Your task to perform on an android device: turn on the 12-hour format for clock Image 0: 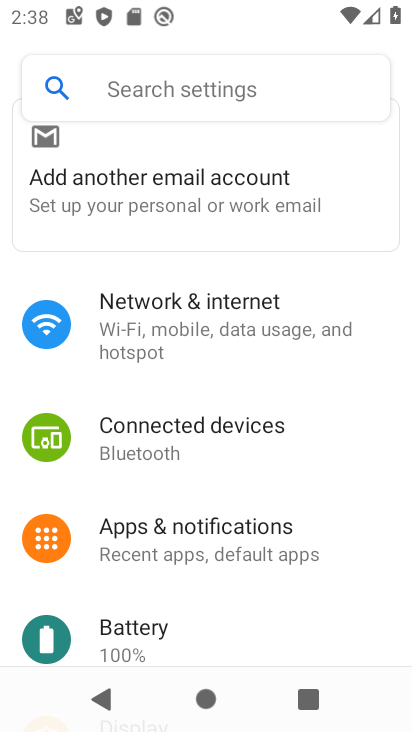
Step 0: press home button
Your task to perform on an android device: turn on the 12-hour format for clock Image 1: 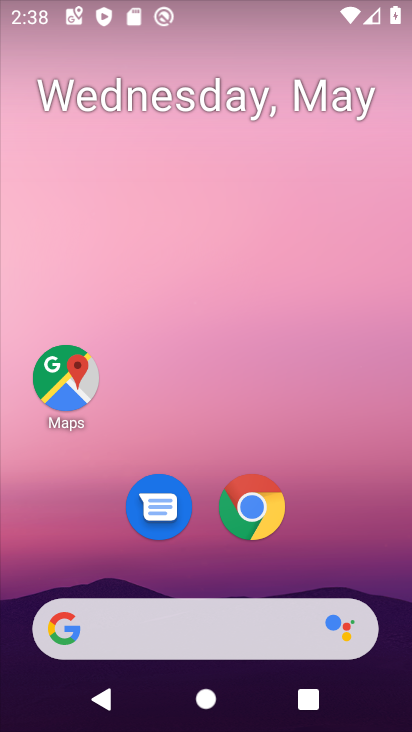
Step 1: drag from (231, 556) to (287, 3)
Your task to perform on an android device: turn on the 12-hour format for clock Image 2: 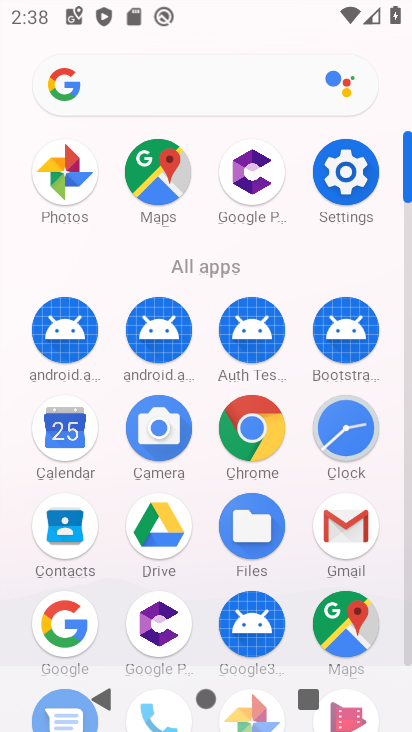
Step 2: click (348, 192)
Your task to perform on an android device: turn on the 12-hour format for clock Image 3: 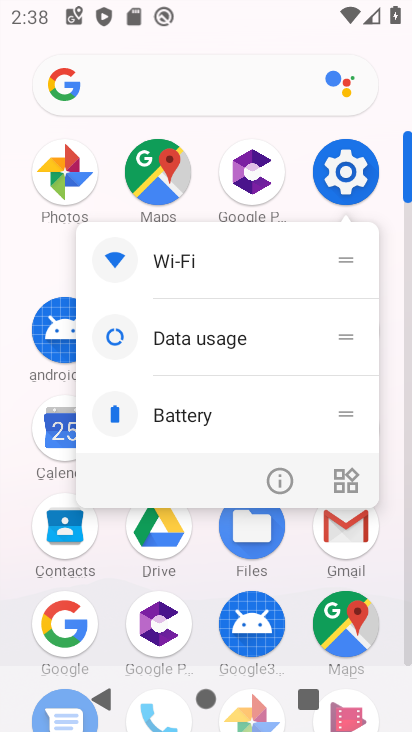
Step 3: click (353, 151)
Your task to perform on an android device: turn on the 12-hour format for clock Image 4: 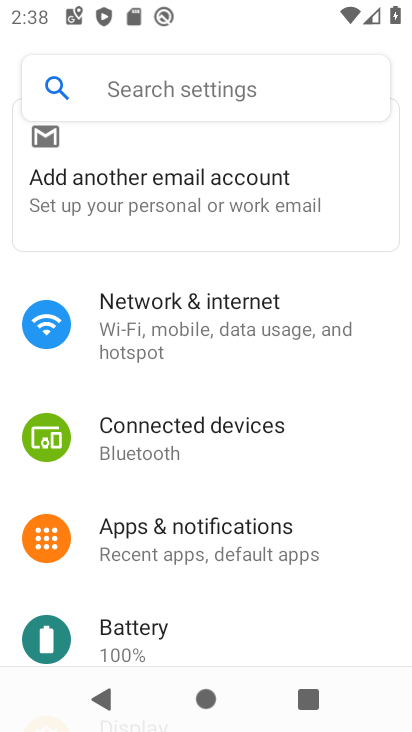
Step 4: drag from (254, 576) to (292, 12)
Your task to perform on an android device: turn on the 12-hour format for clock Image 5: 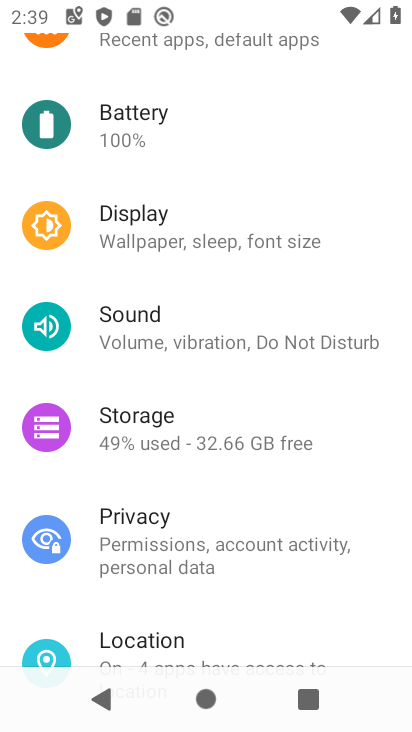
Step 5: drag from (222, 571) to (276, 64)
Your task to perform on an android device: turn on the 12-hour format for clock Image 6: 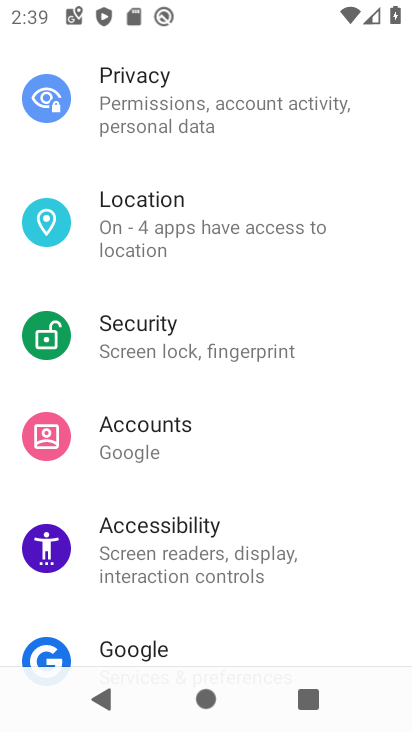
Step 6: drag from (201, 459) to (237, 149)
Your task to perform on an android device: turn on the 12-hour format for clock Image 7: 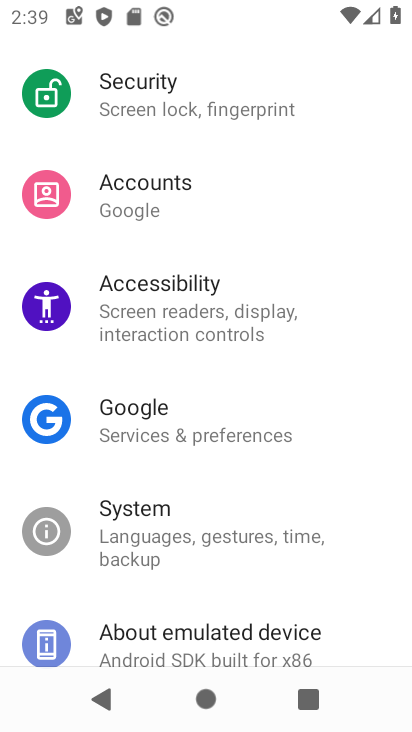
Step 7: drag from (153, 527) to (202, 222)
Your task to perform on an android device: turn on the 12-hour format for clock Image 8: 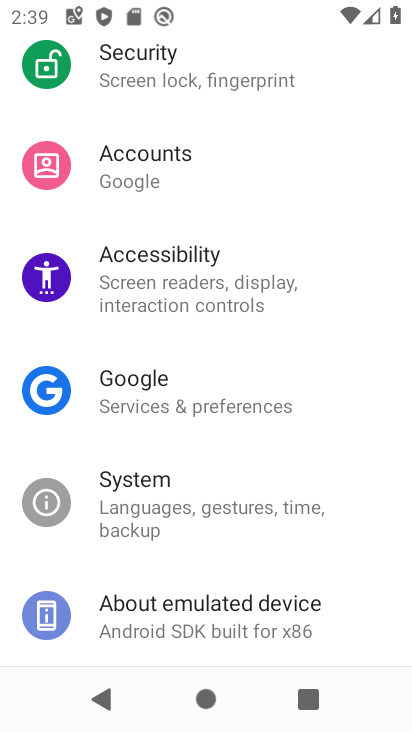
Step 8: drag from (150, 584) to (158, 481)
Your task to perform on an android device: turn on the 12-hour format for clock Image 9: 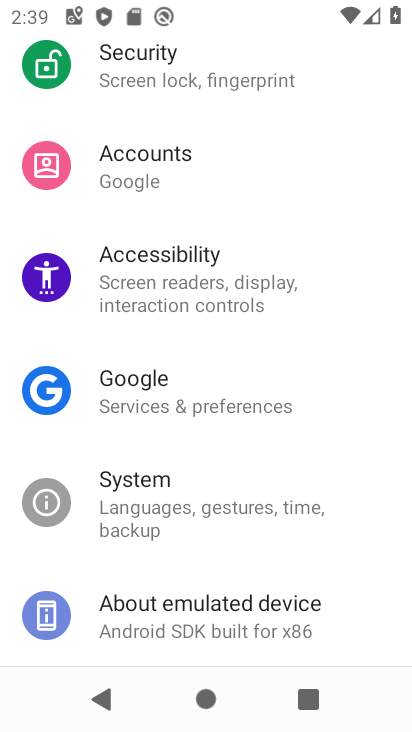
Step 9: click (147, 512)
Your task to perform on an android device: turn on the 12-hour format for clock Image 10: 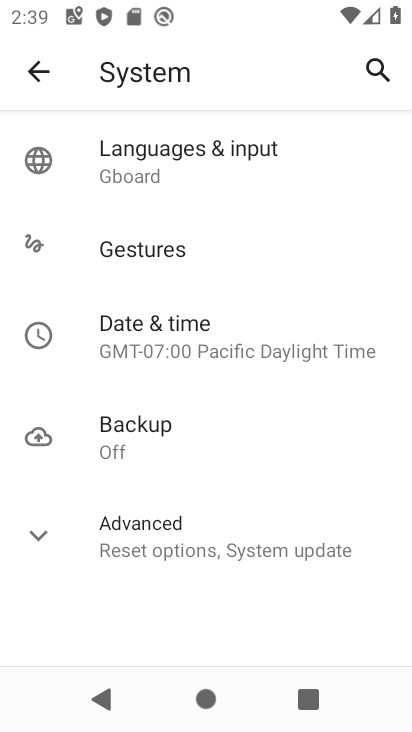
Step 10: click (193, 334)
Your task to perform on an android device: turn on the 12-hour format for clock Image 11: 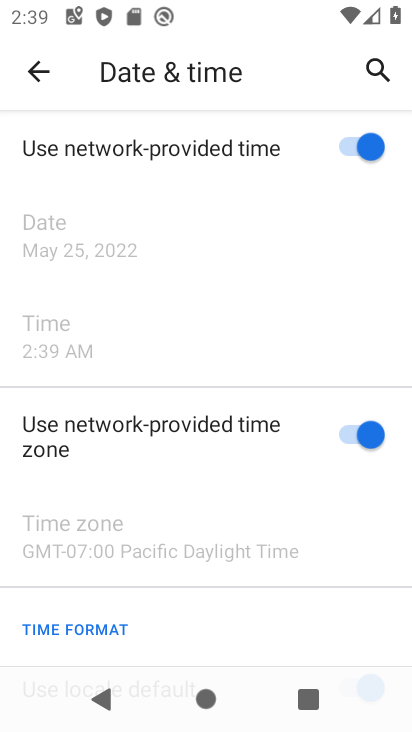
Step 11: task complete